Your task to perform on an android device: set an alarm Image 0: 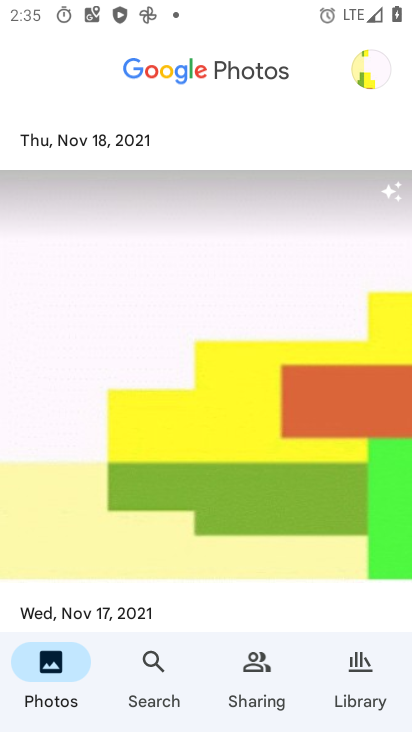
Step 0: press home button
Your task to perform on an android device: set an alarm Image 1: 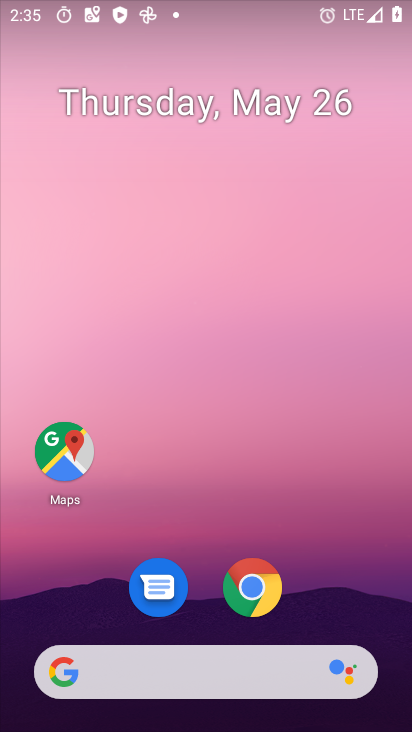
Step 1: drag from (379, 623) to (363, 119)
Your task to perform on an android device: set an alarm Image 2: 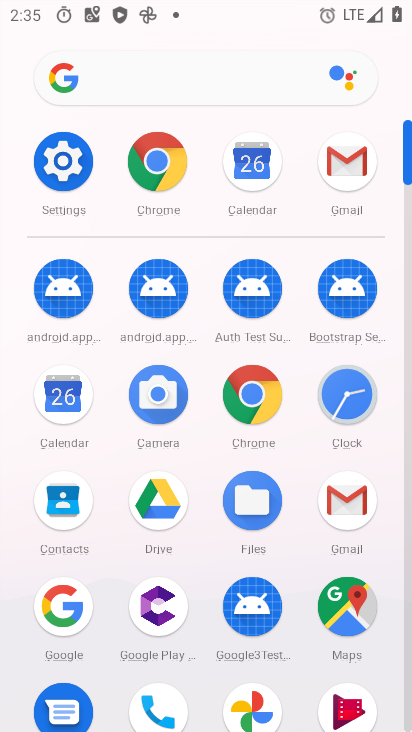
Step 2: click (348, 396)
Your task to perform on an android device: set an alarm Image 3: 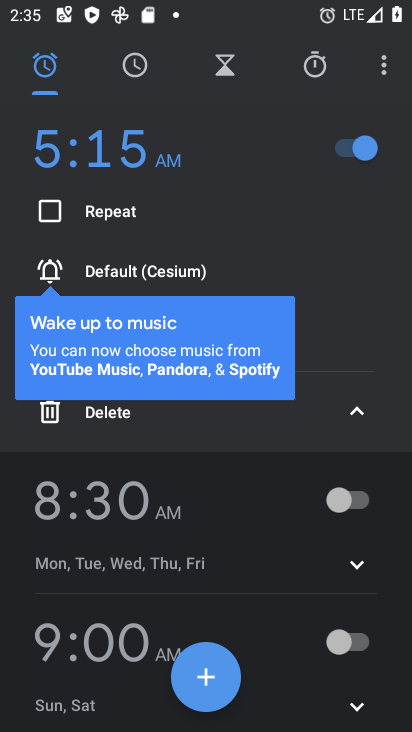
Step 3: click (212, 683)
Your task to perform on an android device: set an alarm Image 4: 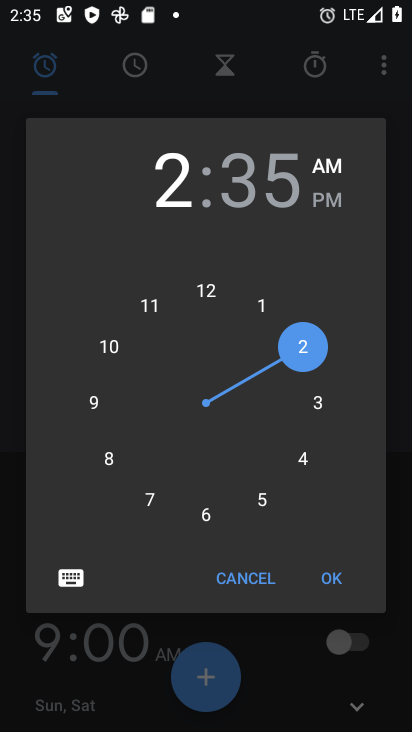
Step 4: click (267, 503)
Your task to perform on an android device: set an alarm Image 5: 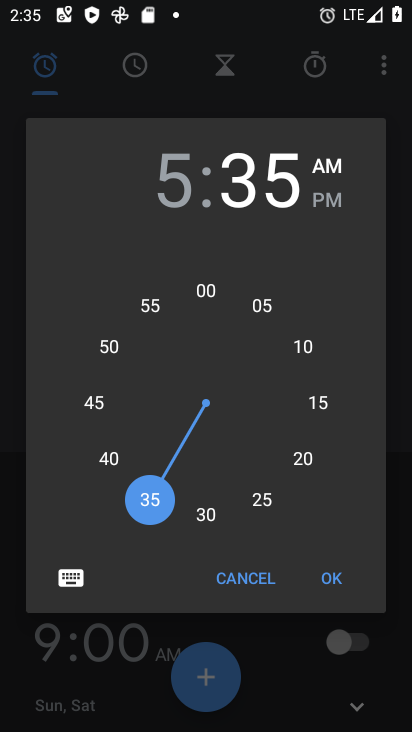
Step 5: click (332, 580)
Your task to perform on an android device: set an alarm Image 6: 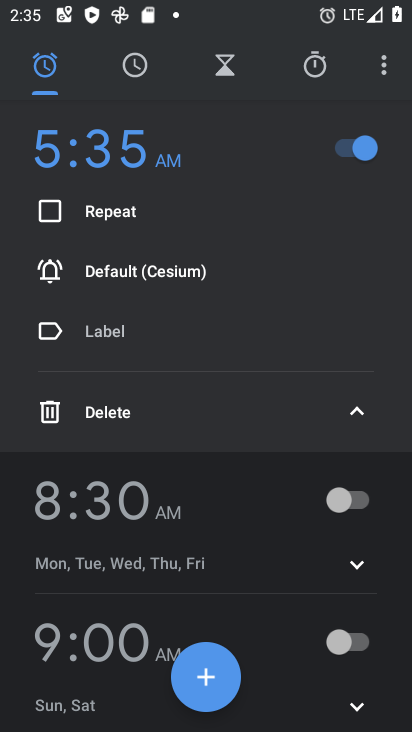
Step 6: task complete